Your task to perform on an android device: move an email to a new category in the gmail app Image 0: 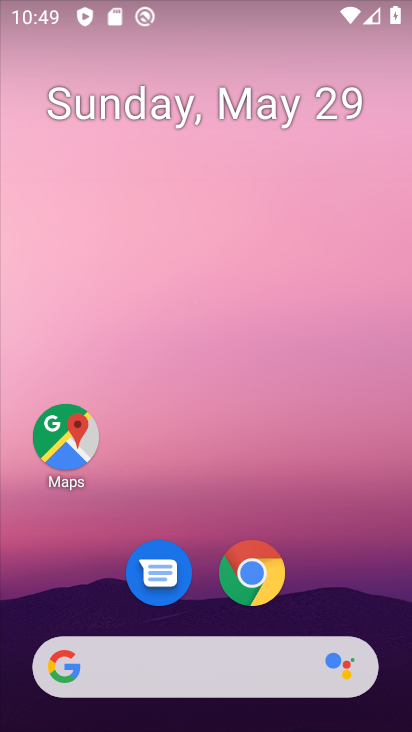
Step 0: drag from (314, 563) to (316, 150)
Your task to perform on an android device: move an email to a new category in the gmail app Image 1: 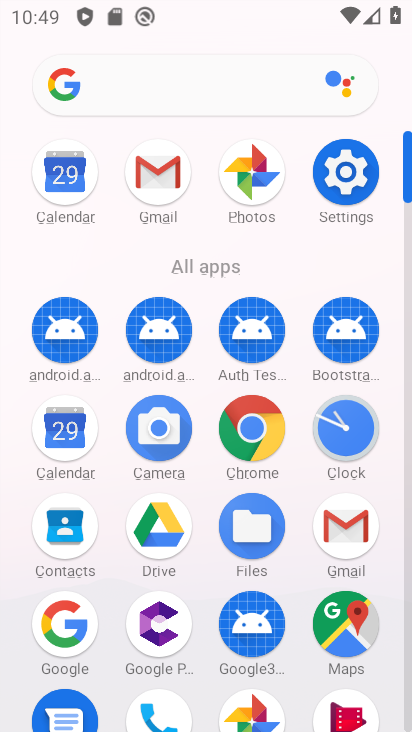
Step 1: click (150, 175)
Your task to perform on an android device: move an email to a new category in the gmail app Image 2: 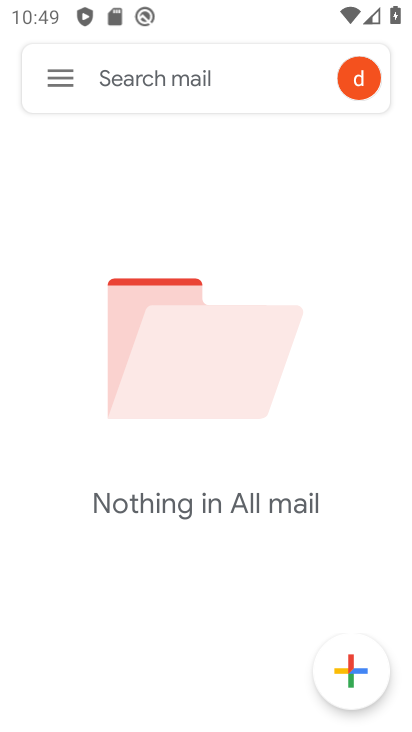
Step 2: click (58, 80)
Your task to perform on an android device: move an email to a new category in the gmail app Image 3: 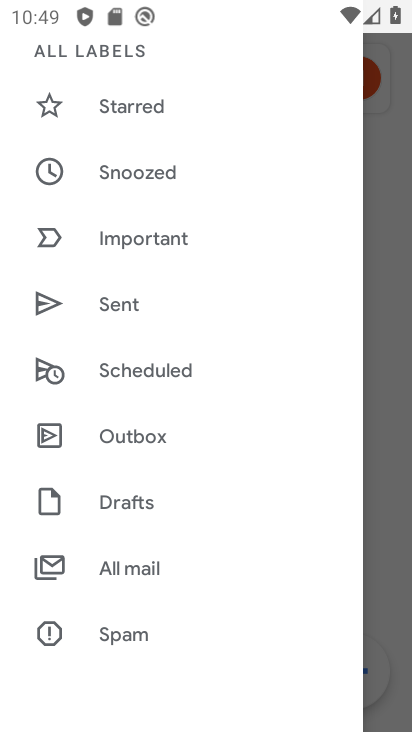
Step 3: click (146, 567)
Your task to perform on an android device: move an email to a new category in the gmail app Image 4: 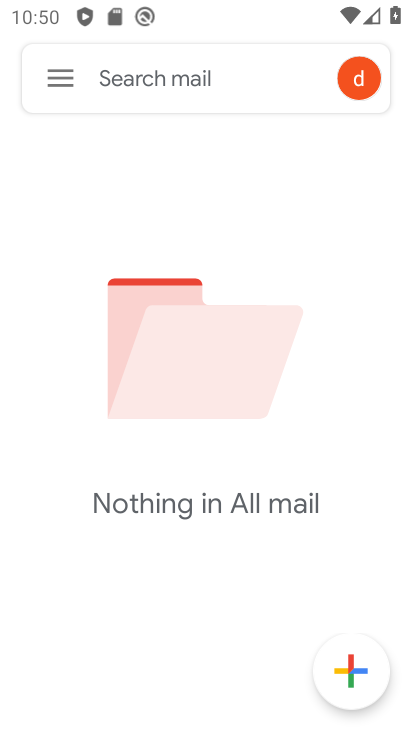
Step 4: task complete